Your task to perform on an android device: What's the weather going to be tomorrow? Image 0: 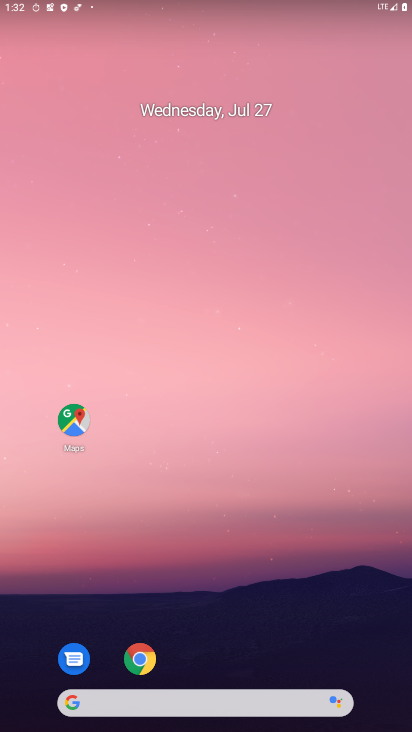
Step 0: click (143, 657)
Your task to perform on an android device: What's the weather going to be tomorrow? Image 1: 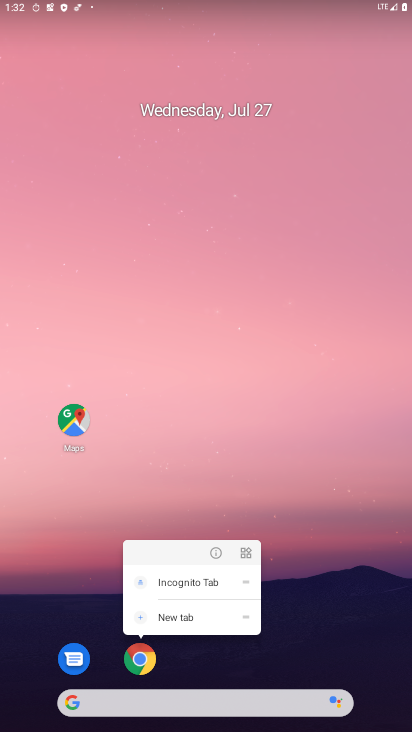
Step 1: click (143, 663)
Your task to perform on an android device: What's the weather going to be tomorrow? Image 2: 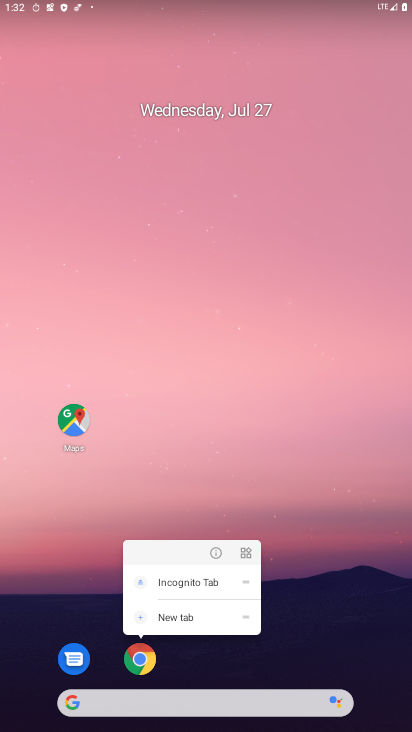
Step 2: click (142, 659)
Your task to perform on an android device: What's the weather going to be tomorrow? Image 3: 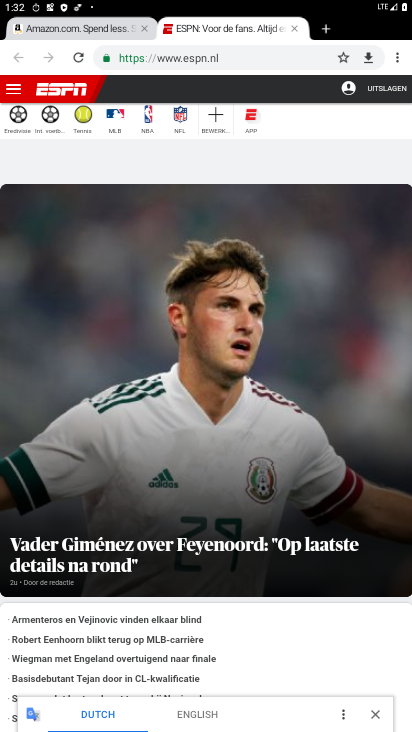
Step 3: click (187, 58)
Your task to perform on an android device: What's the weather going to be tomorrow? Image 4: 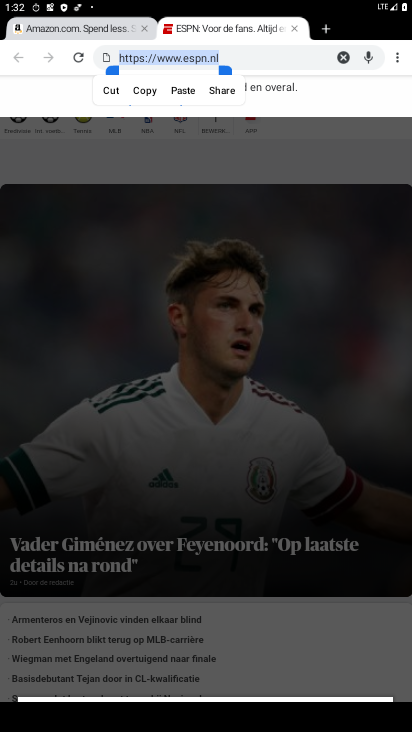
Step 4: type "What's the weather going to be tomorrow?"
Your task to perform on an android device: What's the weather going to be tomorrow? Image 5: 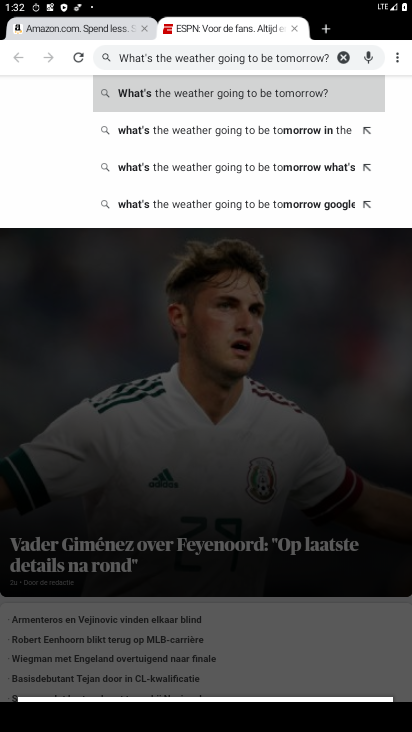
Step 5: click (226, 91)
Your task to perform on an android device: What's the weather going to be tomorrow? Image 6: 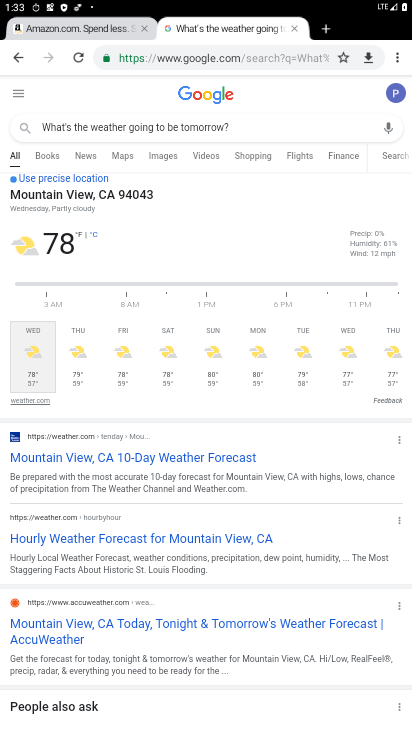
Step 6: task complete